Your task to perform on an android device: Go to Reddit.com Image 0: 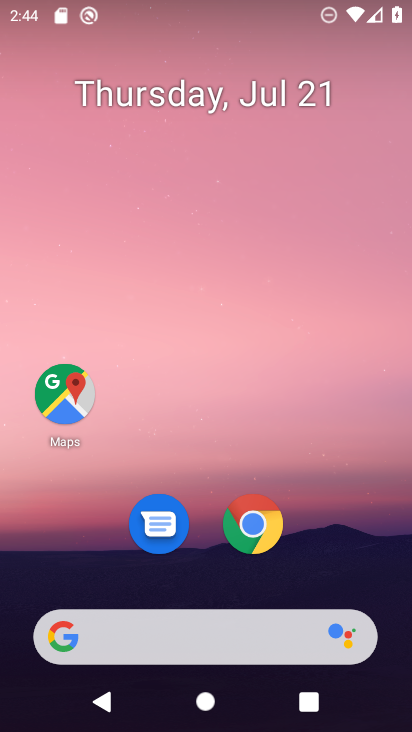
Step 0: click (254, 516)
Your task to perform on an android device: Go to Reddit.com Image 1: 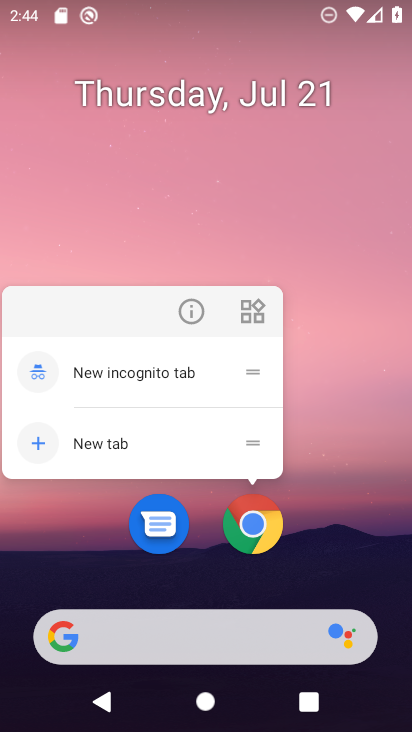
Step 1: click (253, 532)
Your task to perform on an android device: Go to Reddit.com Image 2: 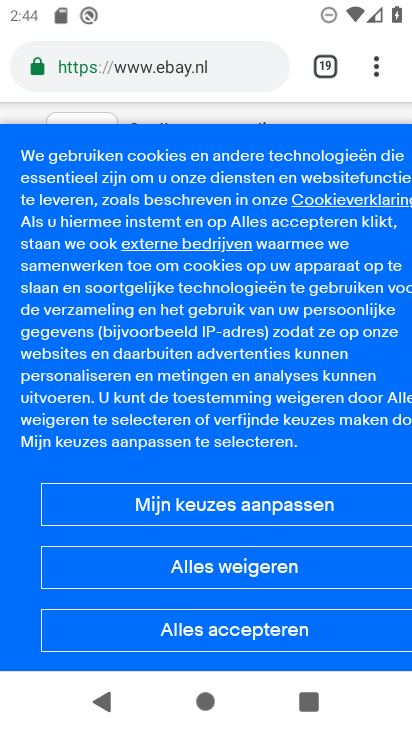
Step 2: drag from (374, 55) to (249, 129)
Your task to perform on an android device: Go to Reddit.com Image 3: 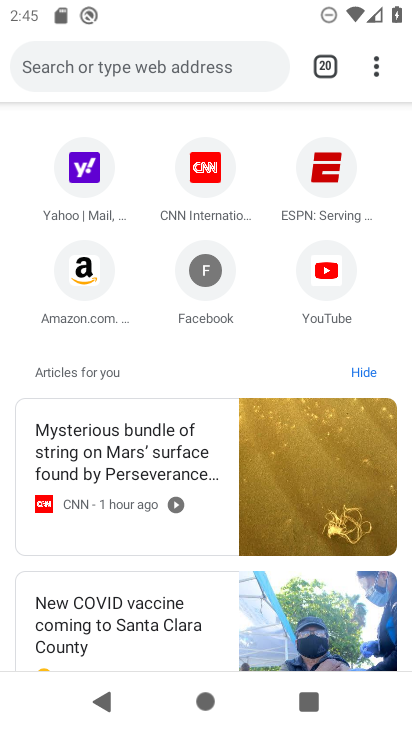
Step 3: click (117, 75)
Your task to perform on an android device: Go to Reddit.com Image 4: 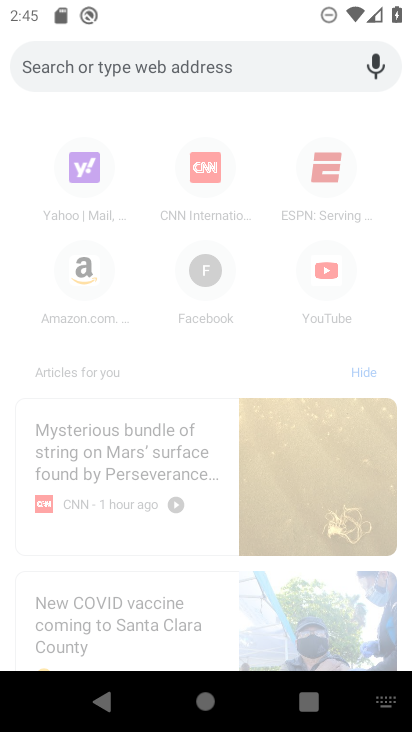
Step 4: type "reddit.com"
Your task to perform on an android device: Go to Reddit.com Image 5: 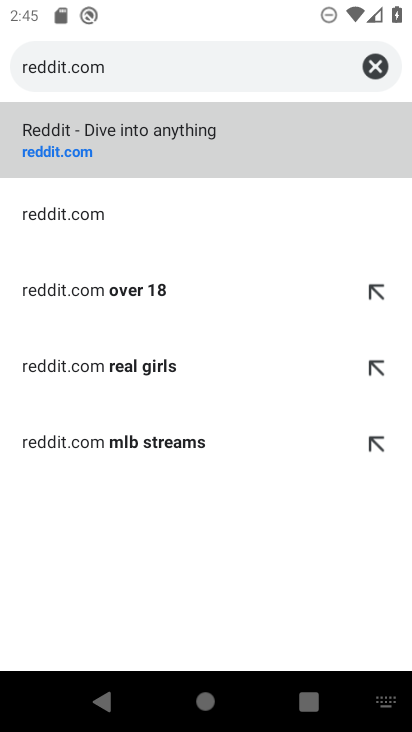
Step 5: click (146, 145)
Your task to perform on an android device: Go to Reddit.com Image 6: 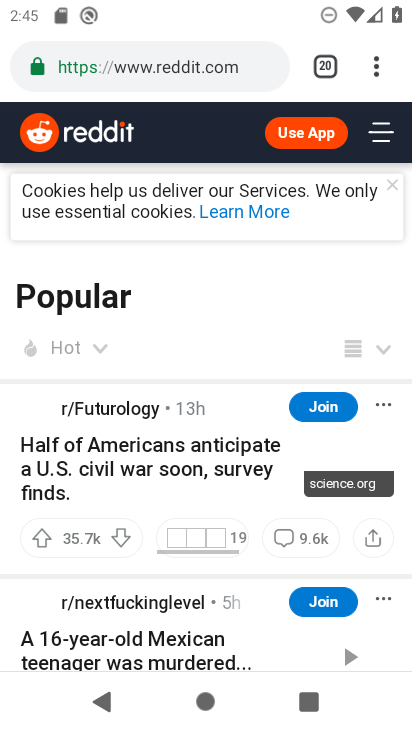
Step 6: task complete